Your task to perform on an android device: When is my next meeting? Image 0: 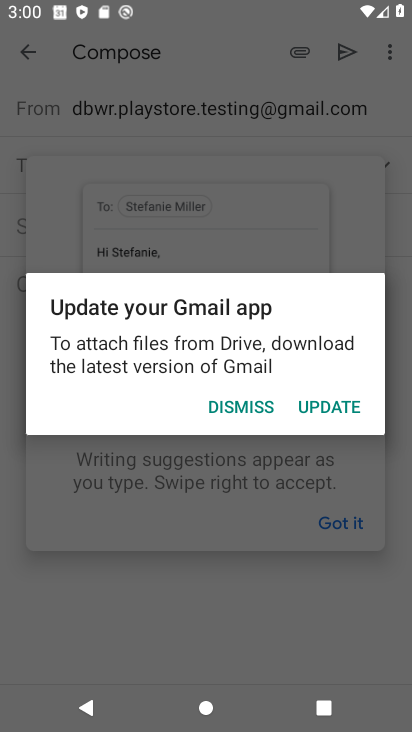
Step 0: press home button
Your task to perform on an android device: When is my next meeting? Image 1: 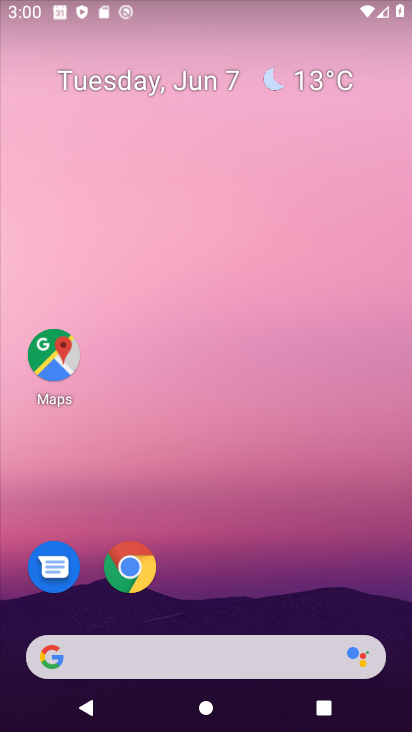
Step 1: drag from (230, 591) to (232, 280)
Your task to perform on an android device: When is my next meeting? Image 2: 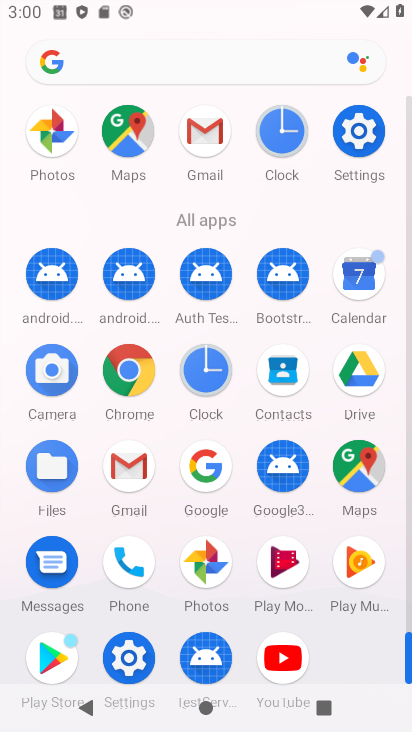
Step 2: click (376, 272)
Your task to perform on an android device: When is my next meeting? Image 3: 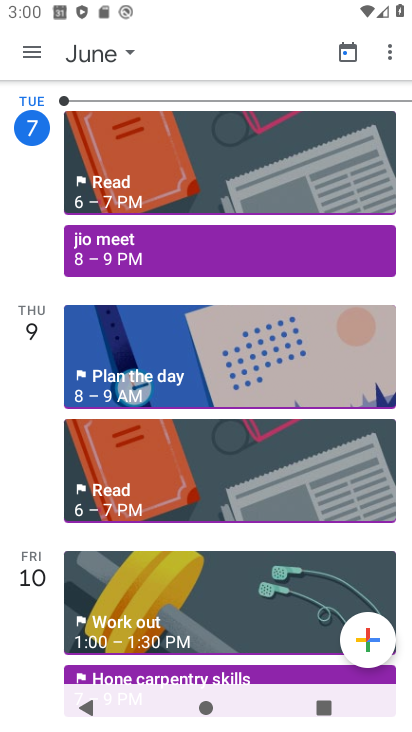
Step 3: task complete